Your task to perform on an android device: change keyboard looks Image 0: 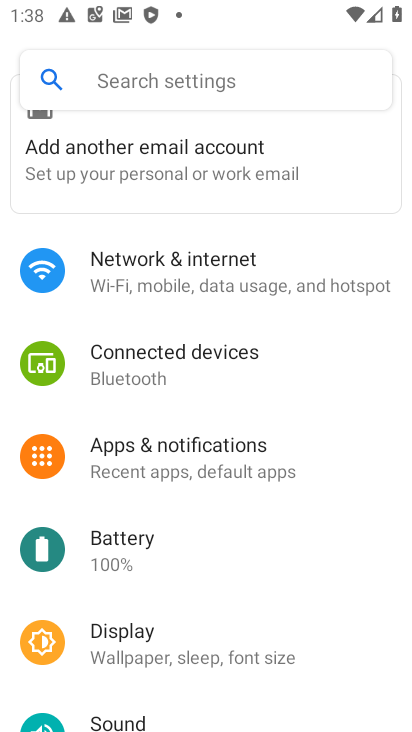
Step 0: press home button
Your task to perform on an android device: change keyboard looks Image 1: 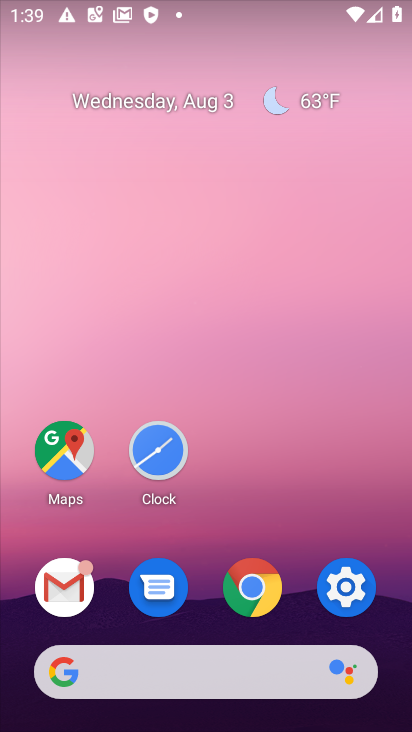
Step 1: click (343, 589)
Your task to perform on an android device: change keyboard looks Image 2: 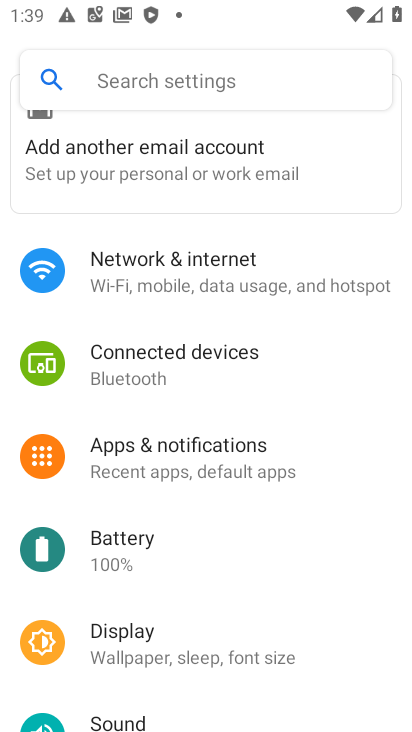
Step 2: drag from (248, 680) to (213, 291)
Your task to perform on an android device: change keyboard looks Image 3: 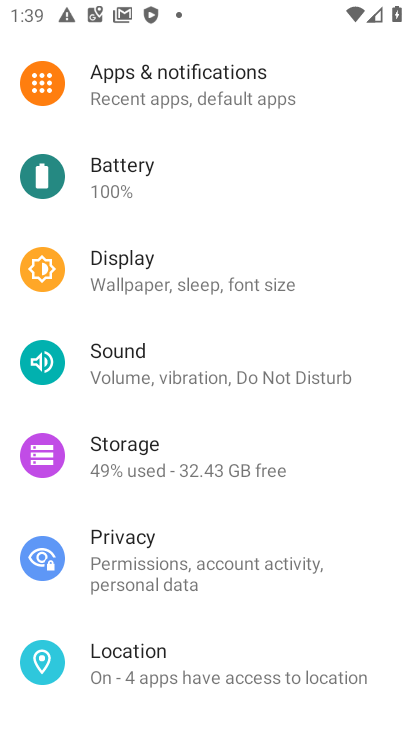
Step 3: drag from (208, 606) to (225, 118)
Your task to perform on an android device: change keyboard looks Image 4: 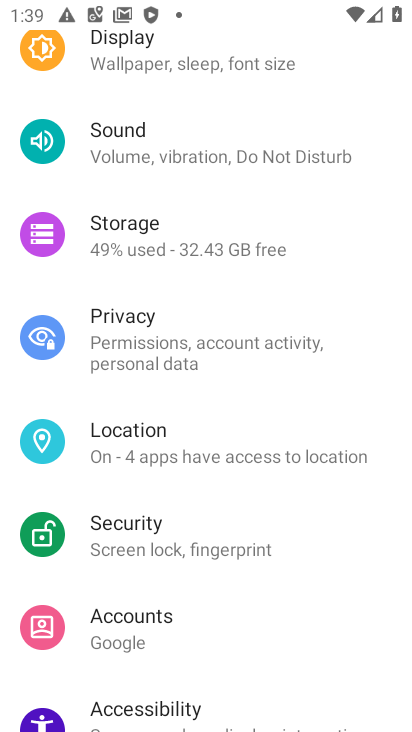
Step 4: drag from (247, 639) to (248, 89)
Your task to perform on an android device: change keyboard looks Image 5: 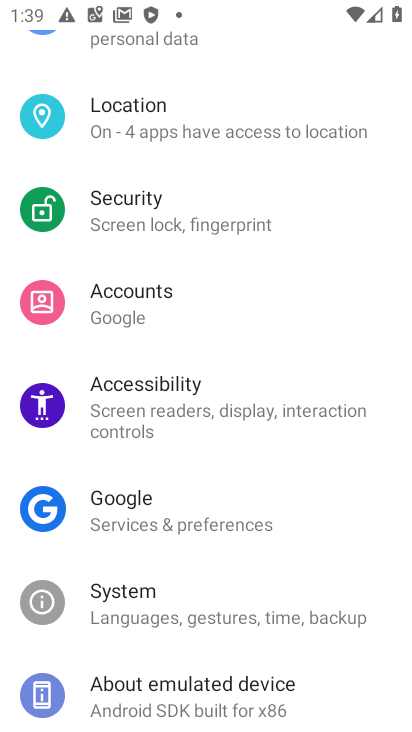
Step 5: drag from (237, 647) to (241, 128)
Your task to perform on an android device: change keyboard looks Image 6: 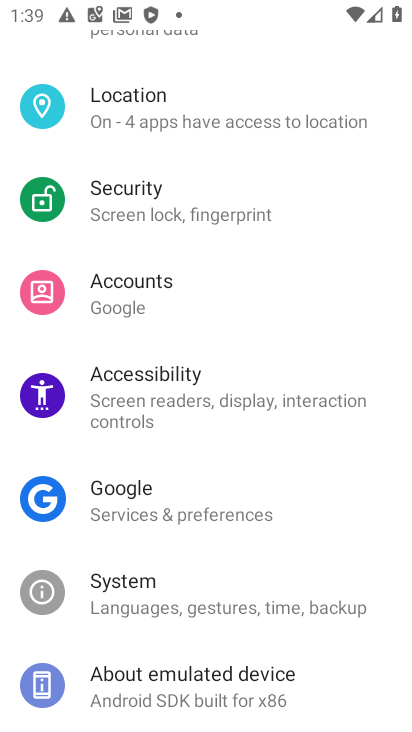
Step 6: click (140, 579)
Your task to perform on an android device: change keyboard looks Image 7: 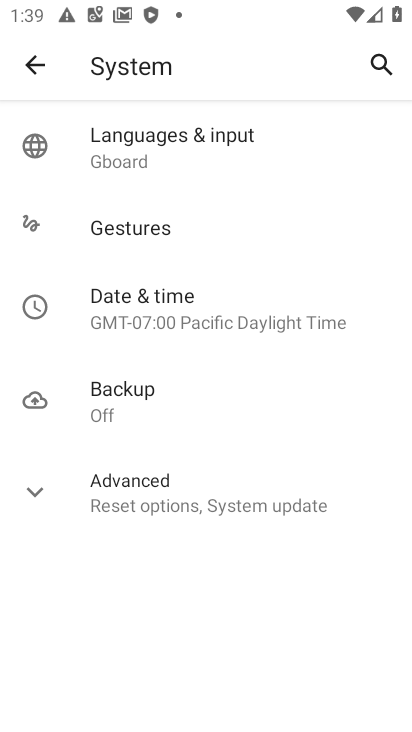
Step 7: click (135, 136)
Your task to perform on an android device: change keyboard looks Image 8: 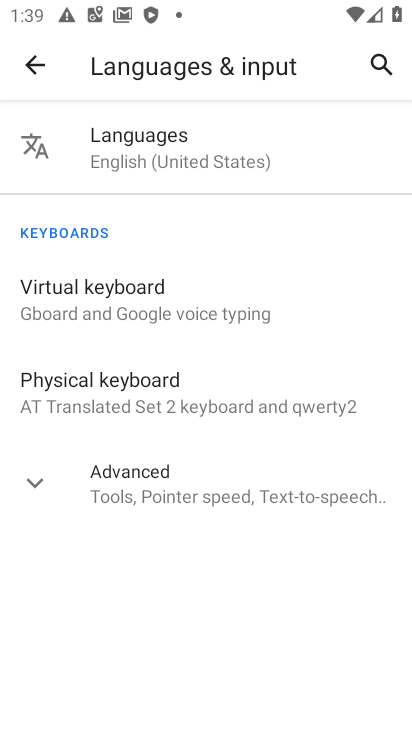
Step 8: click (82, 286)
Your task to perform on an android device: change keyboard looks Image 9: 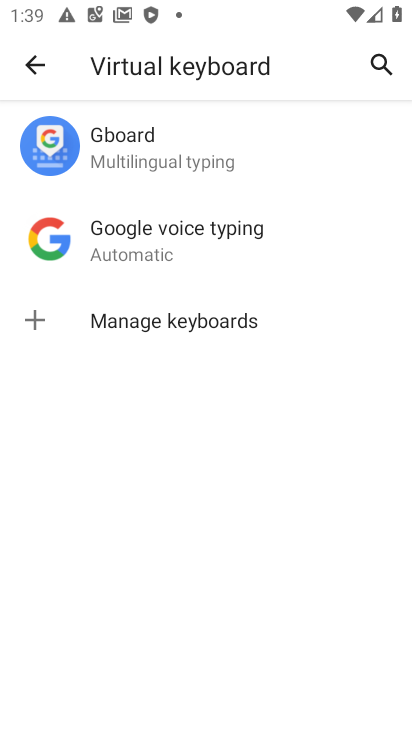
Step 9: click (121, 139)
Your task to perform on an android device: change keyboard looks Image 10: 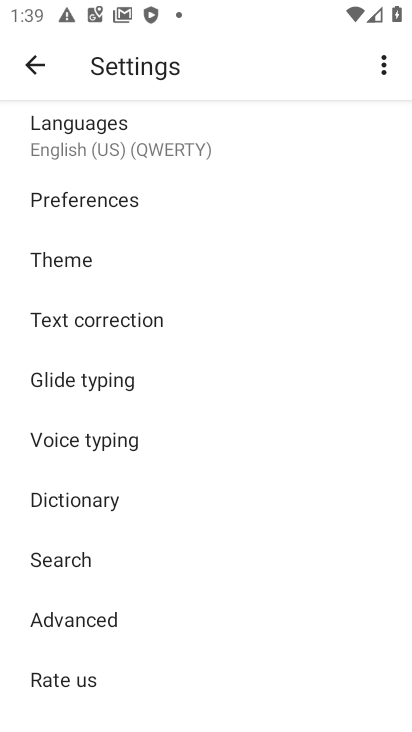
Step 10: click (79, 258)
Your task to perform on an android device: change keyboard looks Image 11: 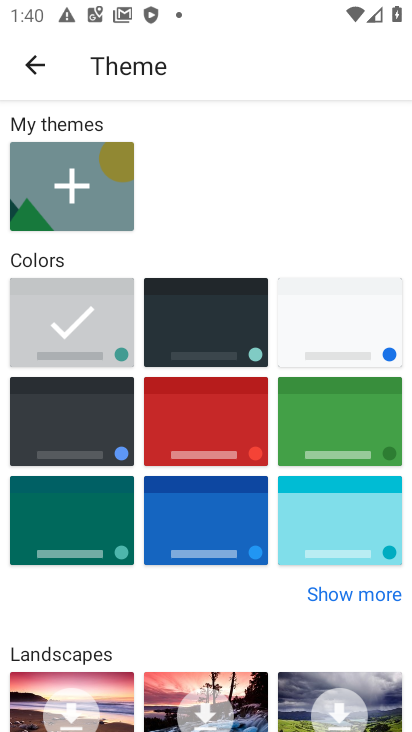
Step 11: click (182, 310)
Your task to perform on an android device: change keyboard looks Image 12: 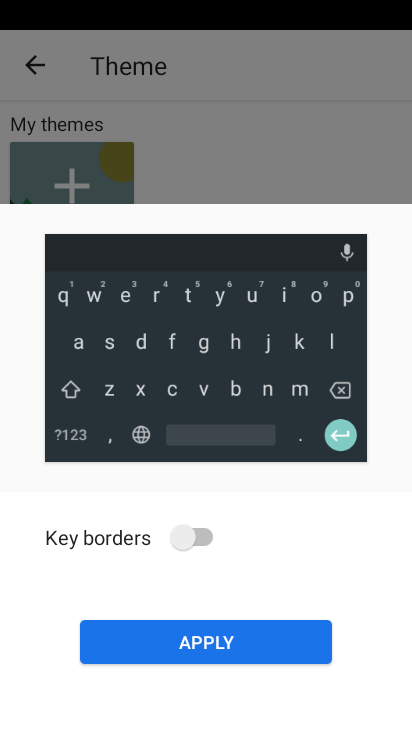
Step 12: click (238, 646)
Your task to perform on an android device: change keyboard looks Image 13: 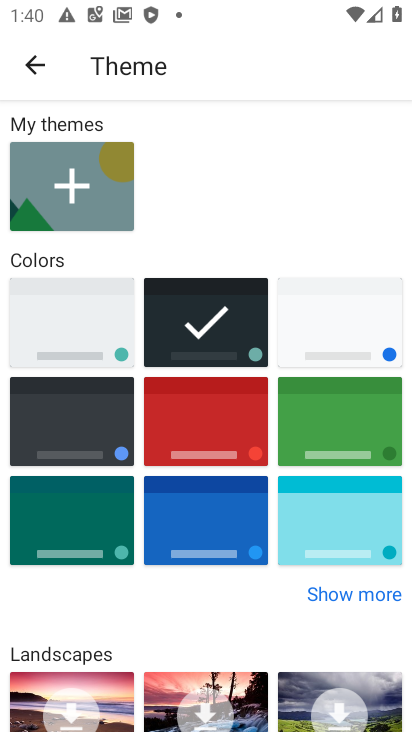
Step 13: task complete